Your task to perform on an android device: turn on showing notifications on the lock screen Image 0: 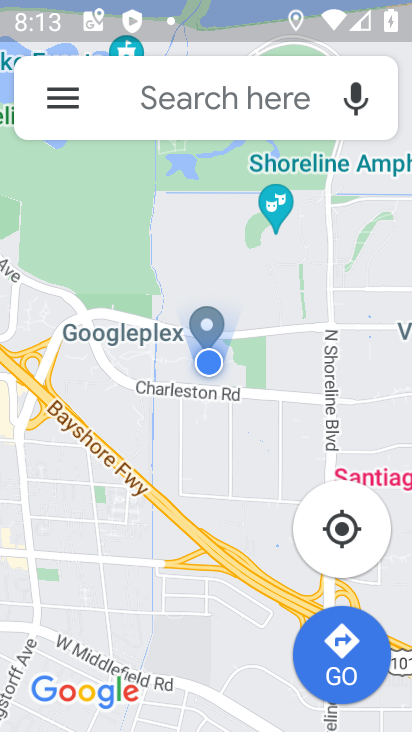
Step 0: press home button
Your task to perform on an android device: turn on showing notifications on the lock screen Image 1: 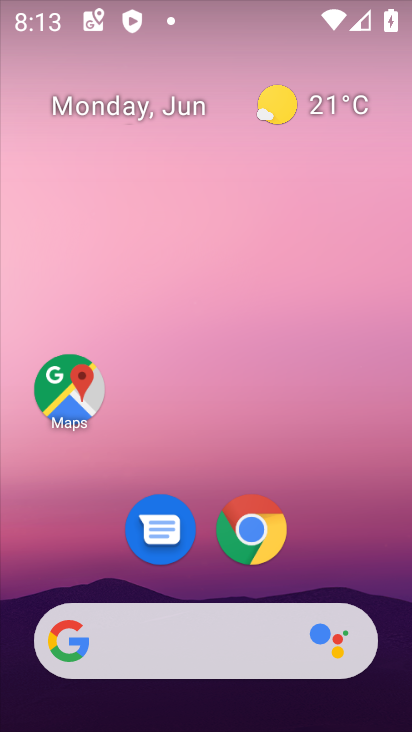
Step 1: drag from (21, 572) to (172, 176)
Your task to perform on an android device: turn on showing notifications on the lock screen Image 2: 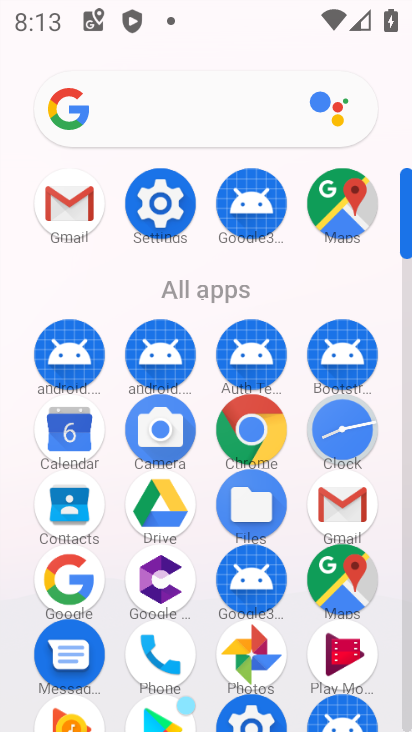
Step 2: click (144, 212)
Your task to perform on an android device: turn on showing notifications on the lock screen Image 3: 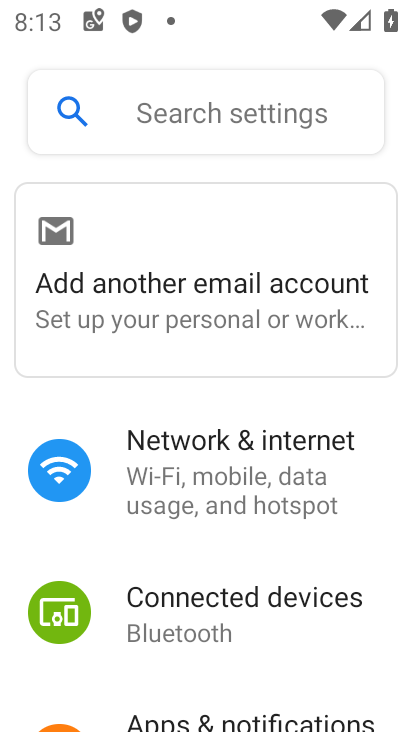
Step 3: click (115, 722)
Your task to perform on an android device: turn on showing notifications on the lock screen Image 4: 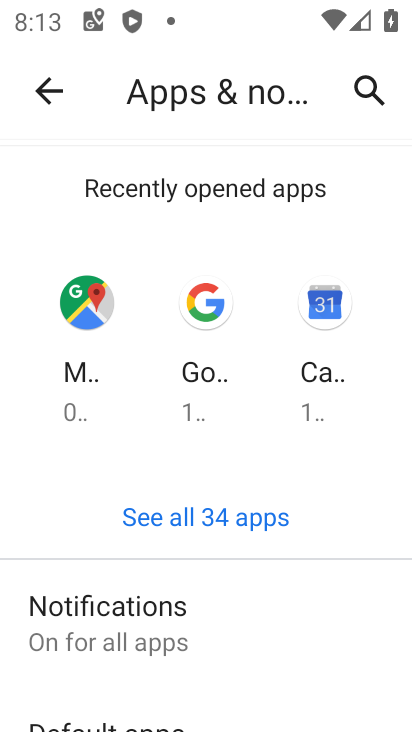
Step 4: click (37, 655)
Your task to perform on an android device: turn on showing notifications on the lock screen Image 5: 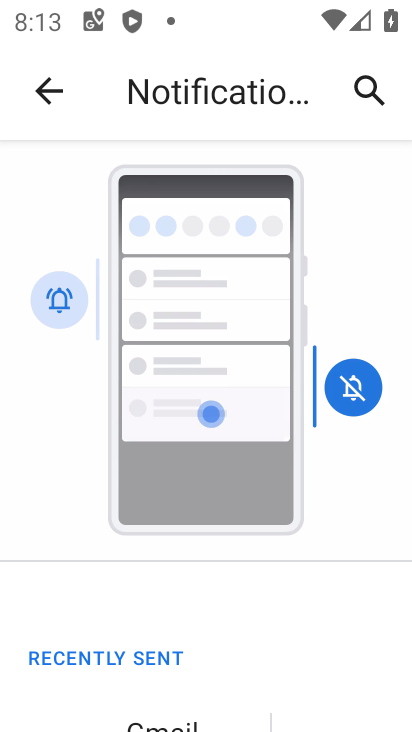
Step 5: drag from (19, 588) to (276, 181)
Your task to perform on an android device: turn on showing notifications on the lock screen Image 6: 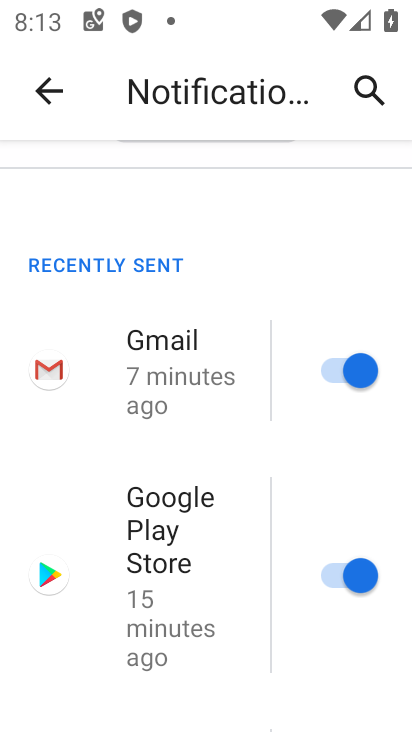
Step 6: drag from (46, 564) to (271, 250)
Your task to perform on an android device: turn on showing notifications on the lock screen Image 7: 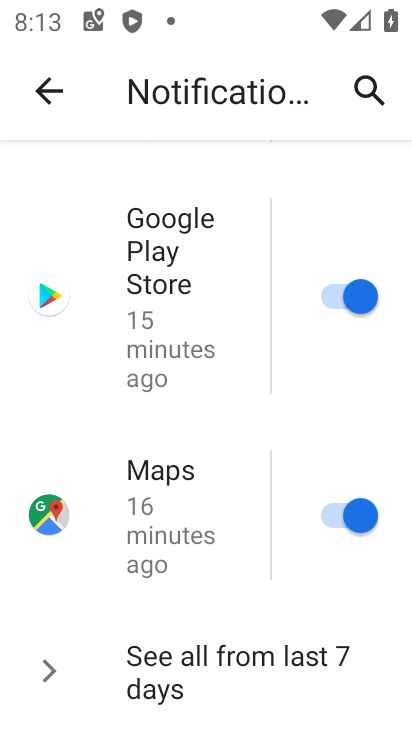
Step 7: drag from (40, 572) to (269, 222)
Your task to perform on an android device: turn on showing notifications on the lock screen Image 8: 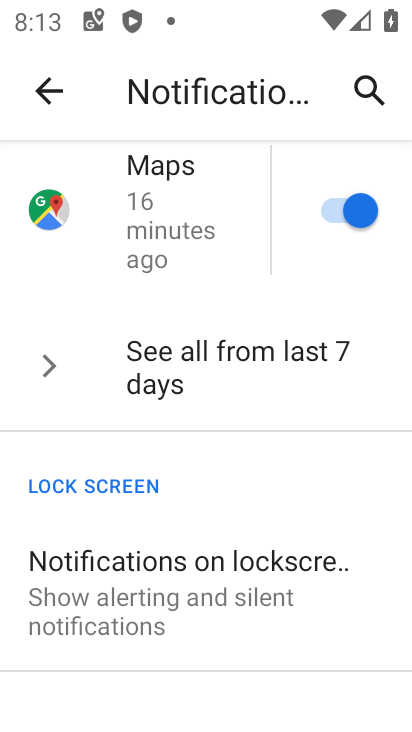
Step 8: click (221, 571)
Your task to perform on an android device: turn on showing notifications on the lock screen Image 9: 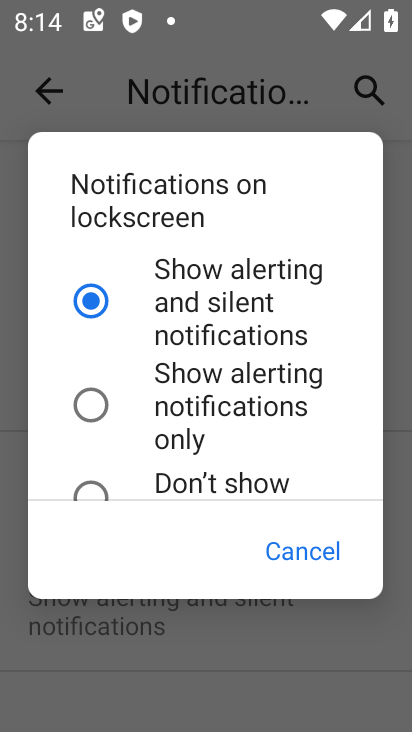
Step 9: task complete